Your task to perform on an android device: Open Wikipedia Image 0: 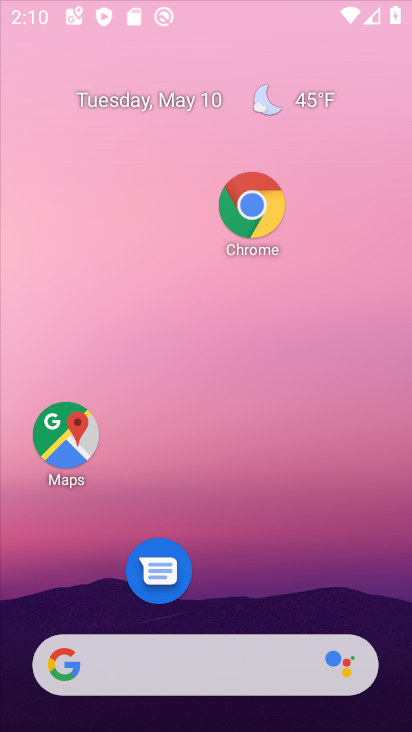
Step 0: click (355, 608)
Your task to perform on an android device: Open Wikipedia Image 1: 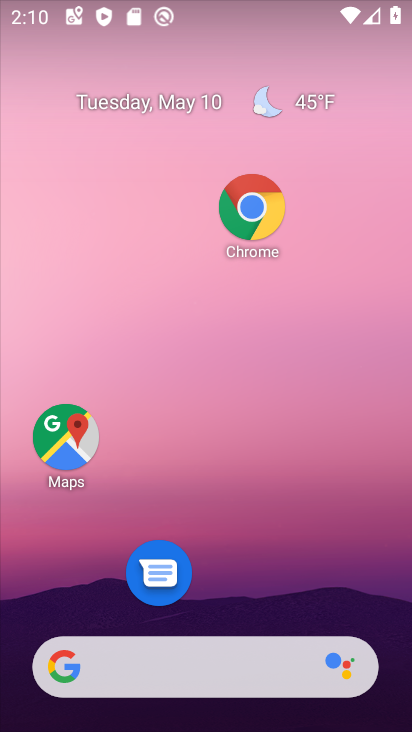
Step 1: click (264, 224)
Your task to perform on an android device: Open Wikipedia Image 2: 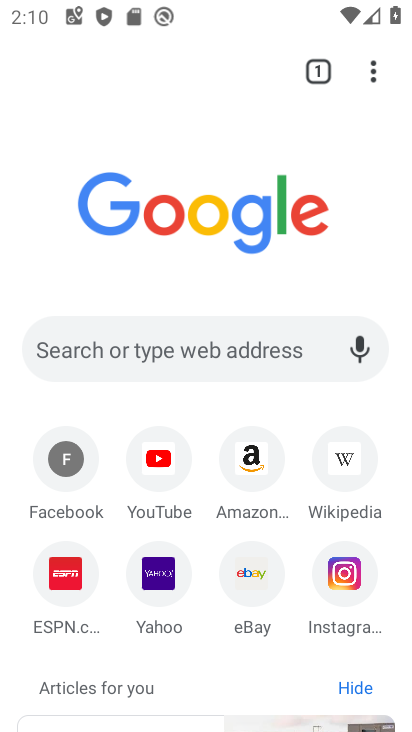
Step 2: click (356, 478)
Your task to perform on an android device: Open Wikipedia Image 3: 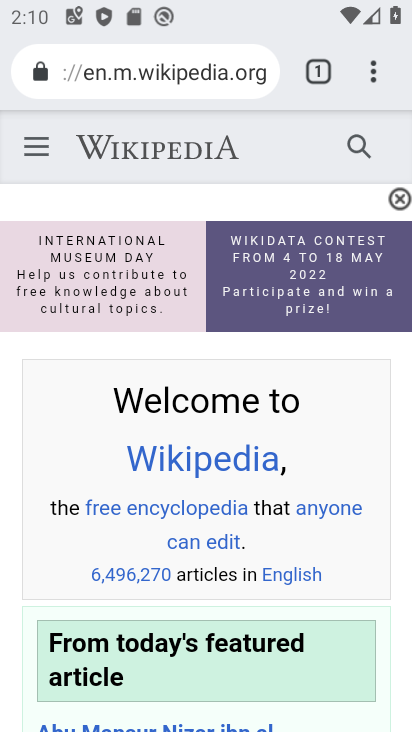
Step 3: task complete